Your task to perform on an android device: open wifi settings Image 0: 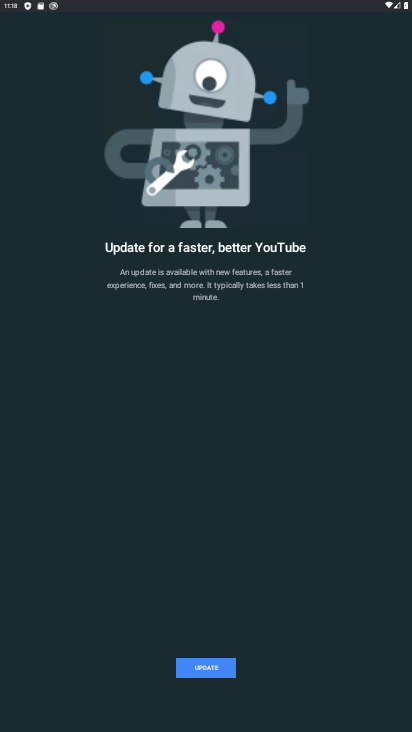
Step 0: press back button
Your task to perform on an android device: open wifi settings Image 1: 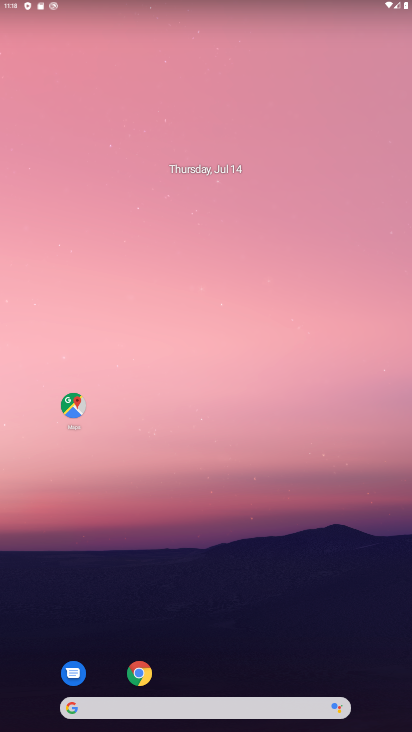
Step 1: drag from (232, 5) to (259, 447)
Your task to perform on an android device: open wifi settings Image 2: 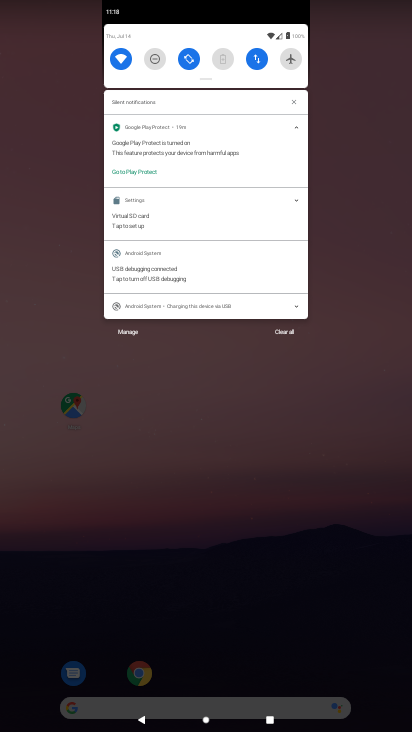
Step 2: click (122, 63)
Your task to perform on an android device: open wifi settings Image 3: 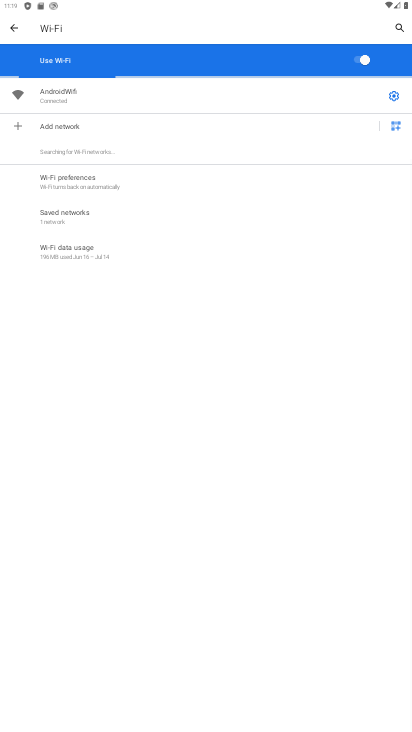
Step 3: task complete